Your task to perform on an android device: Open network settings Image 0: 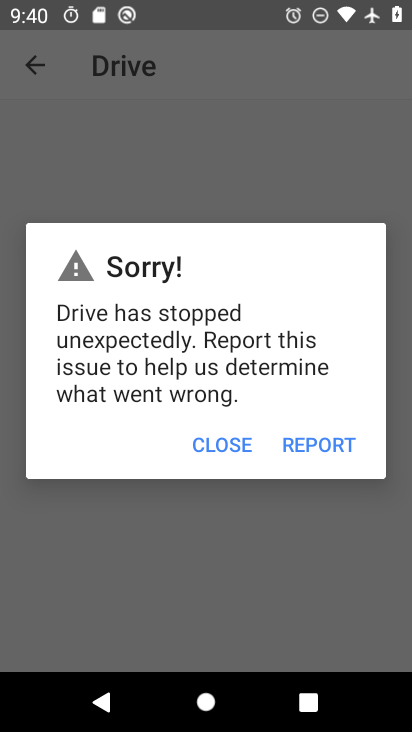
Step 0: press home button
Your task to perform on an android device: Open network settings Image 1: 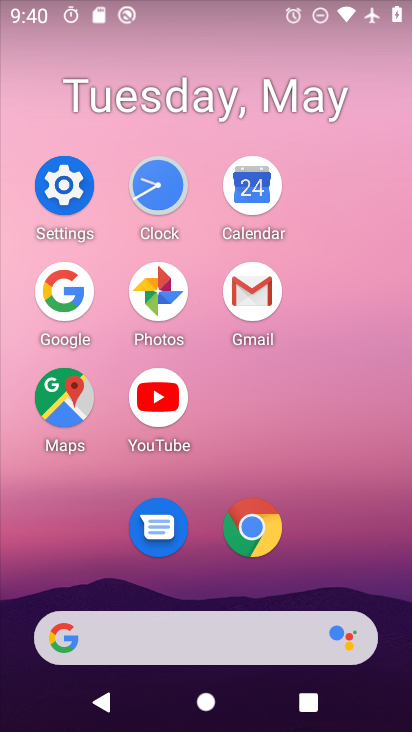
Step 1: click (51, 178)
Your task to perform on an android device: Open network settings Image 2: 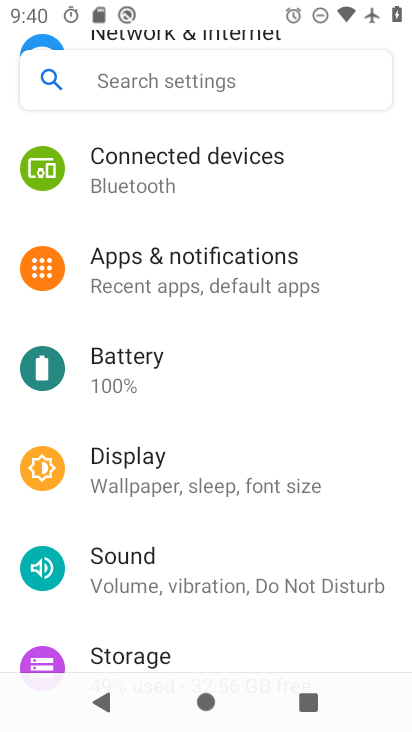
Step 2: drag from (224, 167) to (203, 452)
Your task to perform on an android device: Open network settings Image 3: 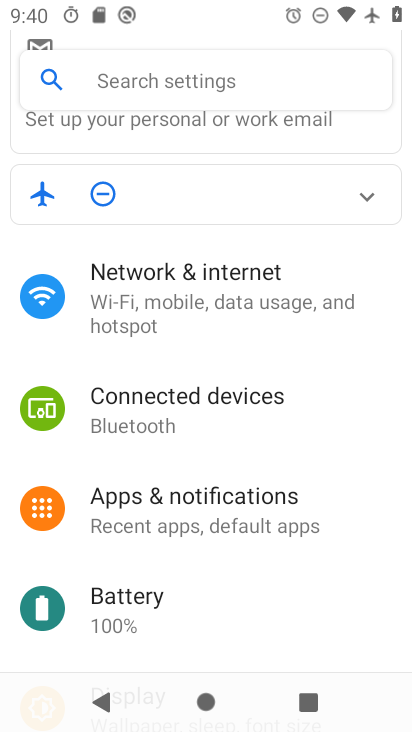
Step 3: click (190, 288)
Your task to perform on an android device: Open network settings Image 4: 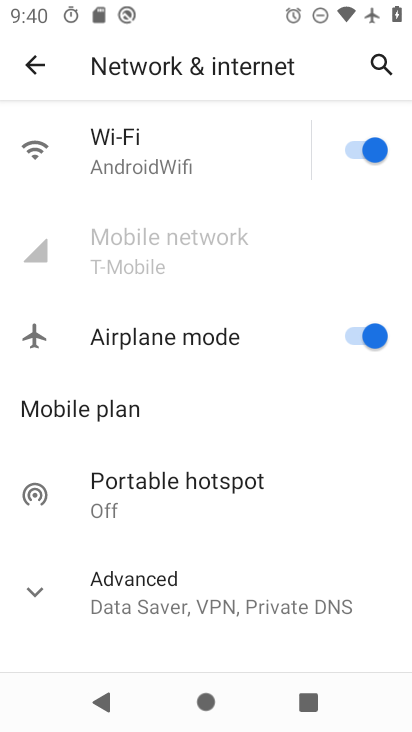
Step 4: task complete